Your task to perform on an android device: toggle airplane mode Image 0: 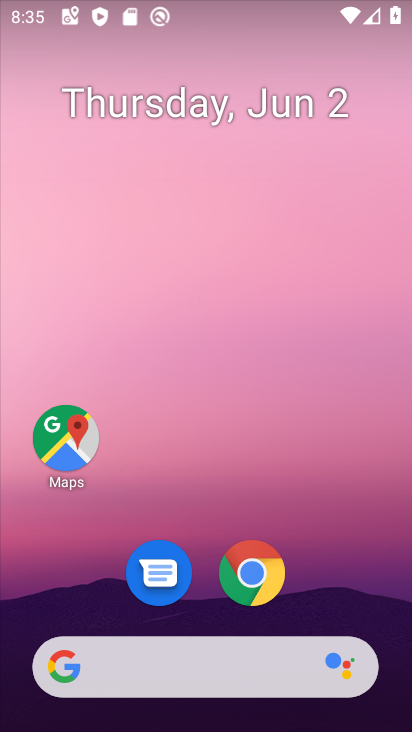
Step 0: press home button
Your task to perform on an android device: toggle airplane mode Image 1: 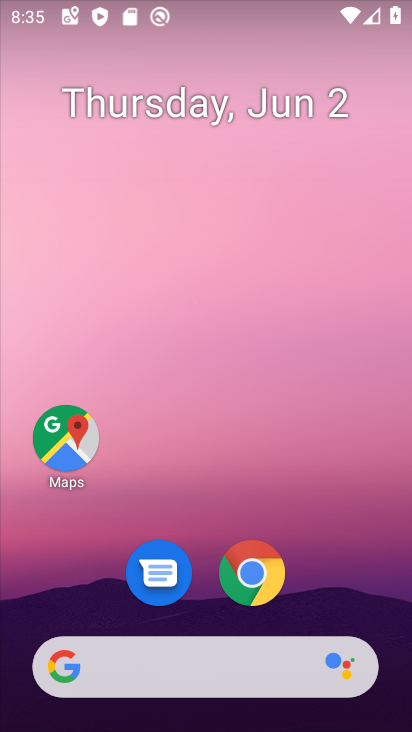
Step 1: drag from (393, 0) to (241, 610)
Your task to perform on an android device: toggle airplane mode Image 2: 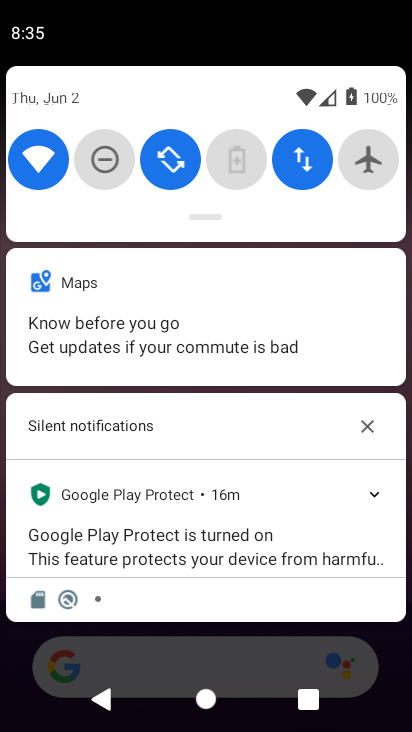
Step 2: click (361, 154)
Your task to perform on an android device: toggle airplane mode Image 3: 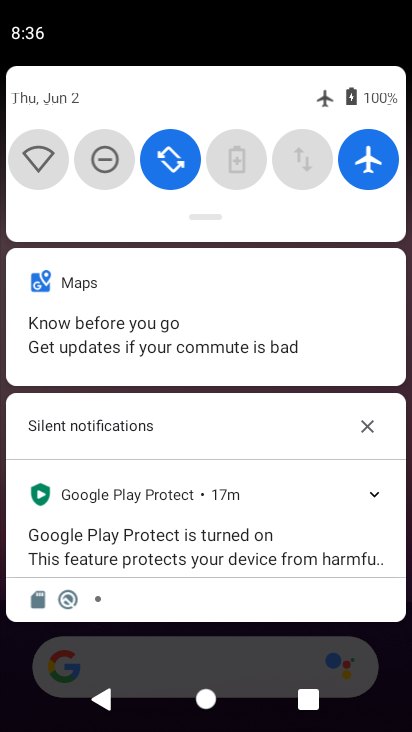
Step 3: task complete